Your task to perform on an android device: Open Google Maps and go to "Timeline" Image 0: 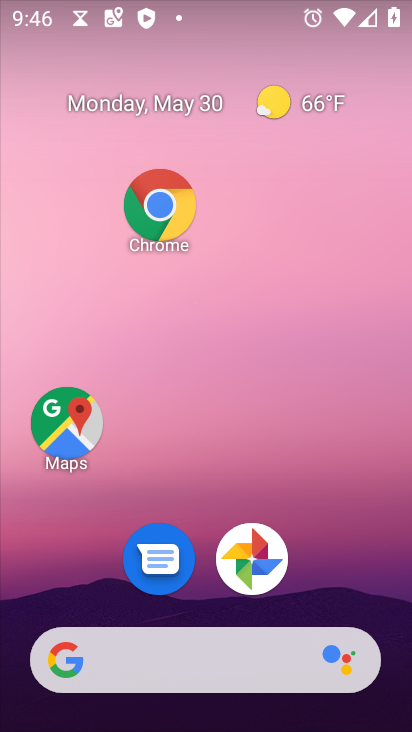
Step 0: drag from (248, 666) to (226, 128)
Your task to perform on an android device: Open Google Maps and go to "Timeline" Image 1: 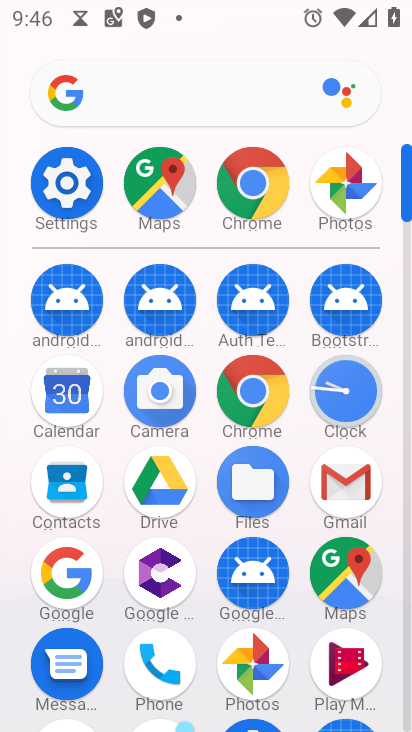
Step 1: click (341, 563)
Your task to perform on an android device: Open Google Maps and go to "Timeline" Image 2: 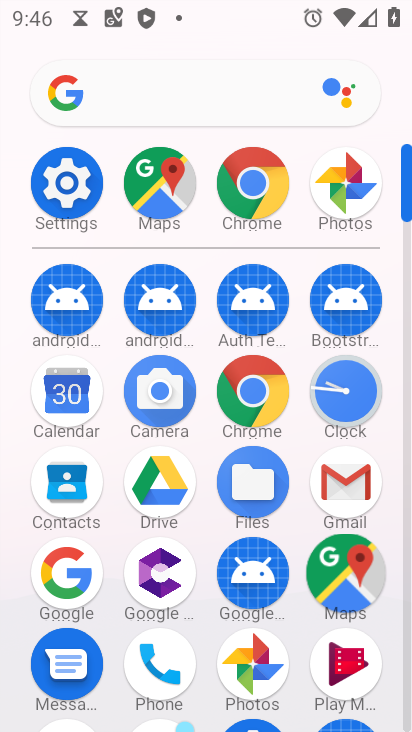
Step 2: click (343, 562)
Your task to perform on an android device: Open Google Maps and go to "Timeline" Image 3: 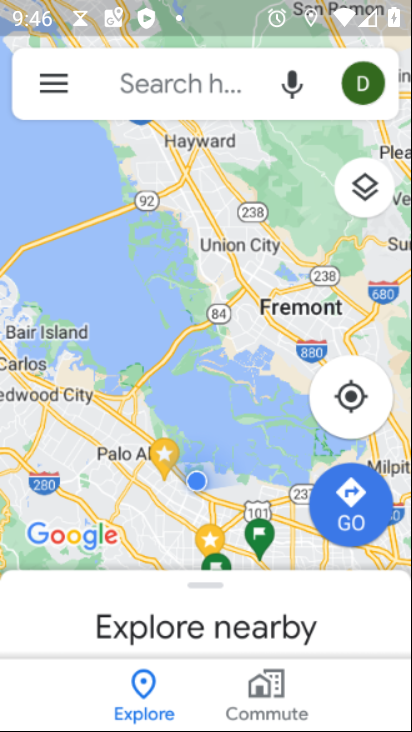
Step 3: click (343, 562)
Your task to perform on an android device: Open Google Maps and go to "Timeline" Image 4: 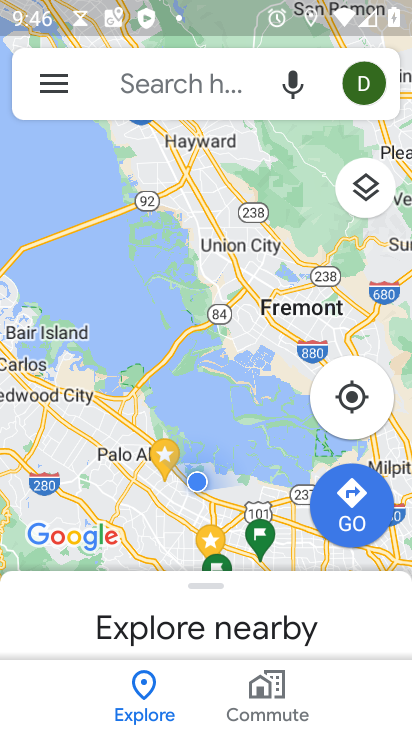
Step 4: click (61, 85)
Your task to perform on an android device: Open Google Maps and go to "Timeline" Image 5: 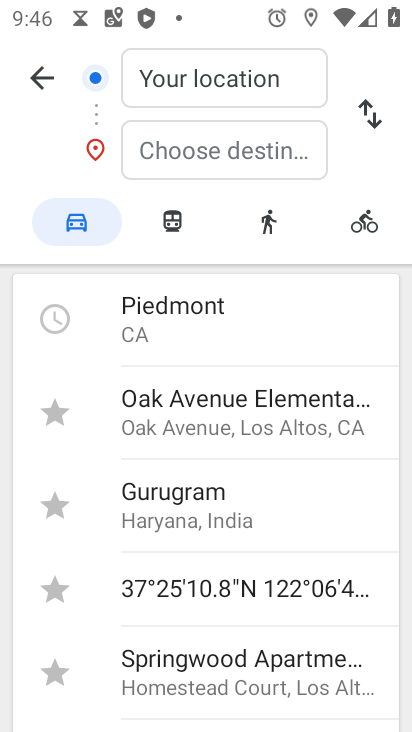
Step 5: press back button
Your task to perform on an android device: Open Google Maps and go to "Timeline" Image 6: 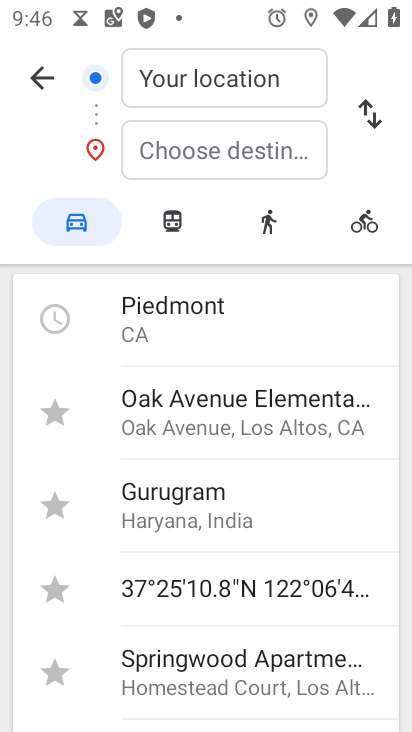
Step 6: press back button
Your task to perform on an android device: Open Google Maps and go to "Timeline" Image 7: 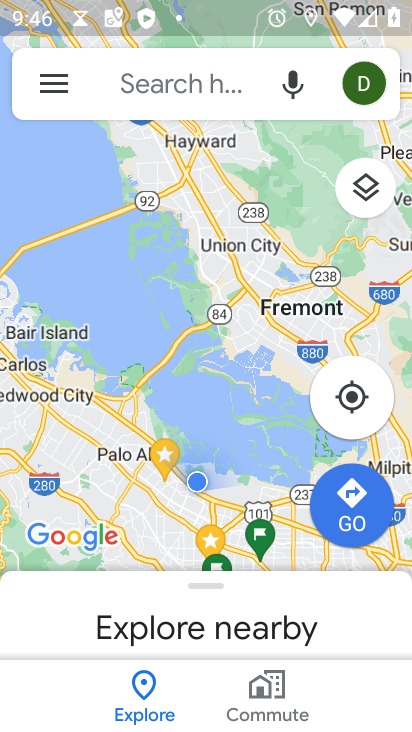
Step 7: press back button
Your task to perform on an android device: Open Google Maps and go to "Timeline" Image 8: 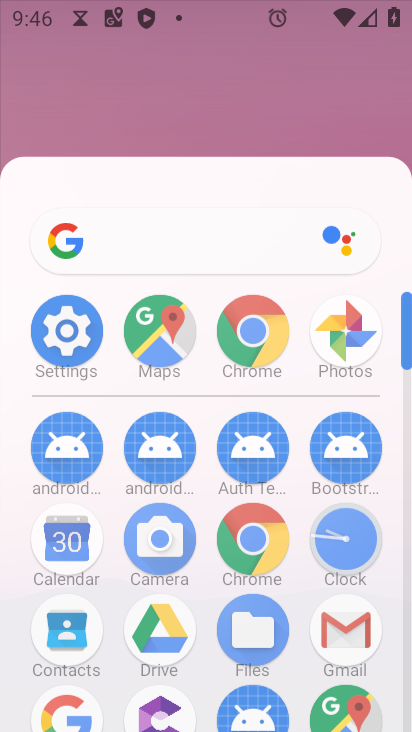
Step 8: click (43, 84)
Your task to perform on an android device: Open Google Maps and go to "Timeline" Image 9: 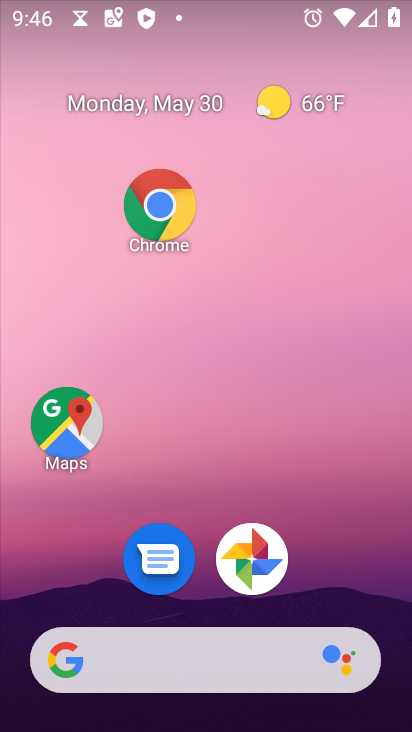
Step 9: drag from (228, 623) to (144, 62)
Your task to perform on an android device: Open Google Maps and go to "Timeline" Image 10: 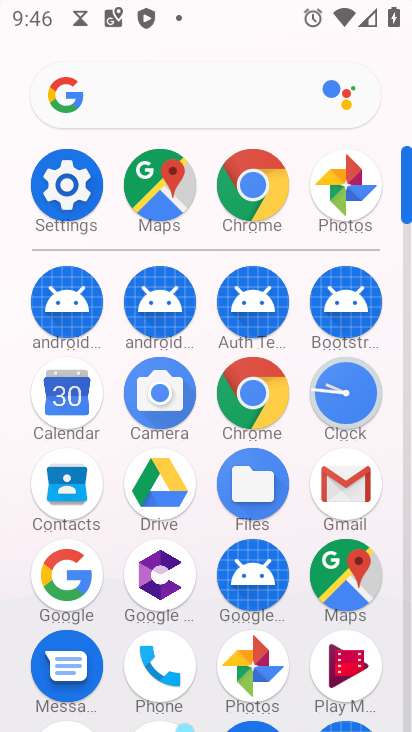
Step 10: drag from (152, 487) to (107, 40)
Your task to perform on an android device: Open Google Maps and go to "Timeline" Image 11: 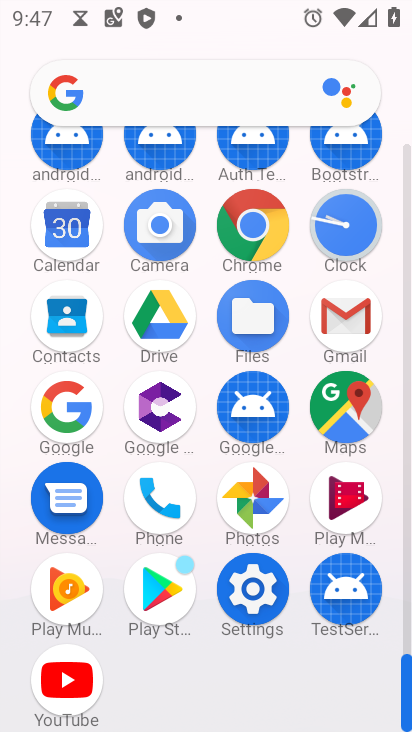
Step 11: click (258, 605)
Your task to perform on an android device: Open Google Maps and go to "Timeline" Image 12: 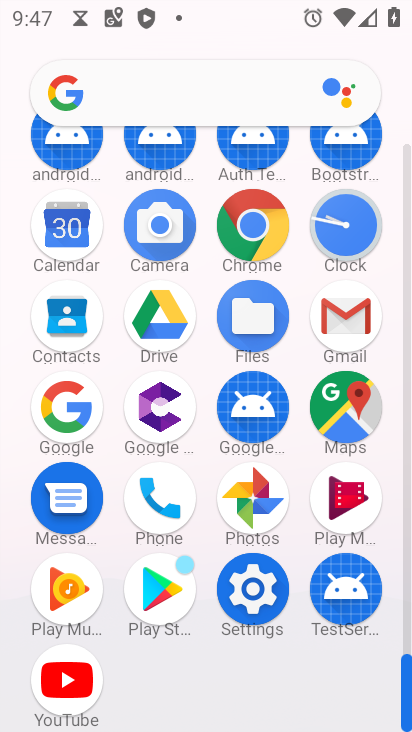
Step 12: click (258, 605)
Your task to perform on an android device: Open Google Maps and go to "Timeline" Image 13: 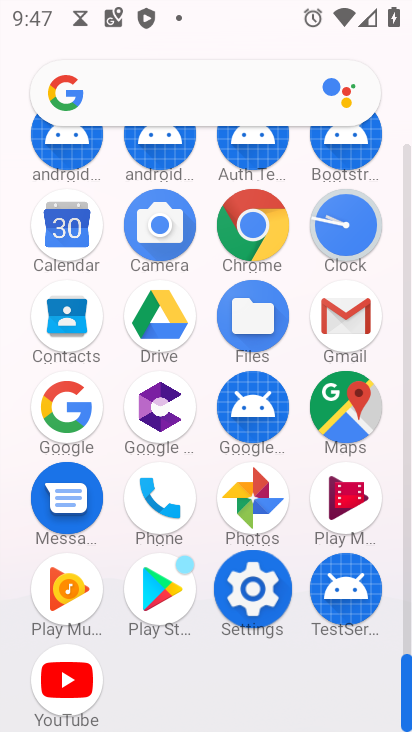
Step 13: click (258, 605)
Your task to perform on an android device: Open Google Maps and go to "Timeline" Image 14: 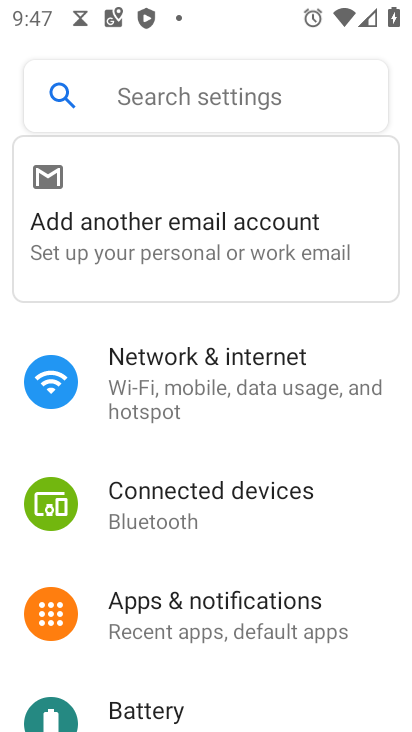
Step 14: drag from (235, 579) to (200, 188)
Your task to perform on an android device: Open Google Maps and go to "Timeline" Image 15: 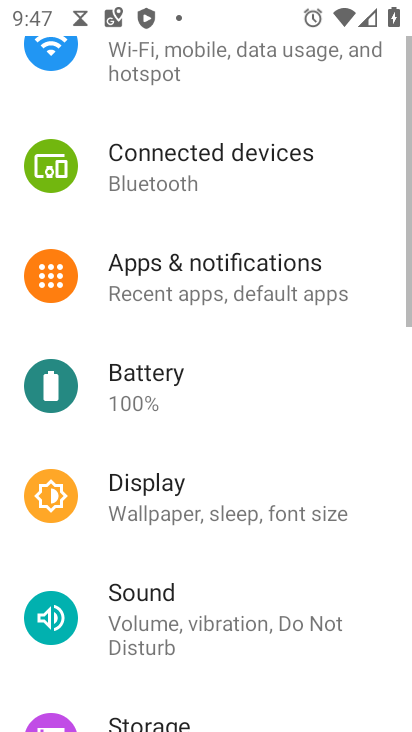
Step 15: drag from (246, 523) to (240, 304)
Your task to perform on an android device: Open Google Maps and go to "Timeline" Image 16: 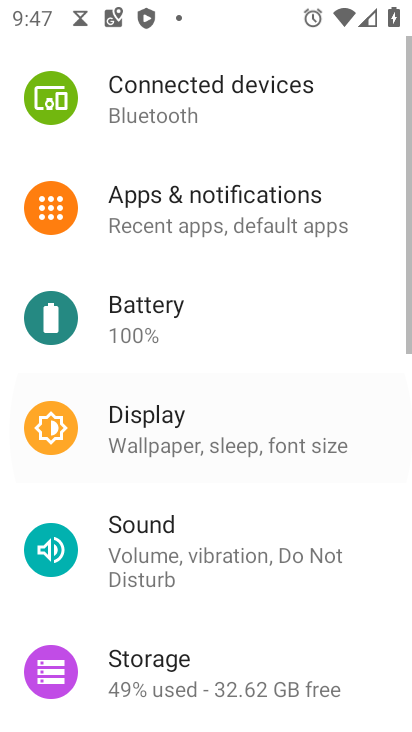
Step 16: drag from (250, 564) to (244, 266)
Your task to perform on an android device: Open Google Maps and go to "Timeline" Image 17: 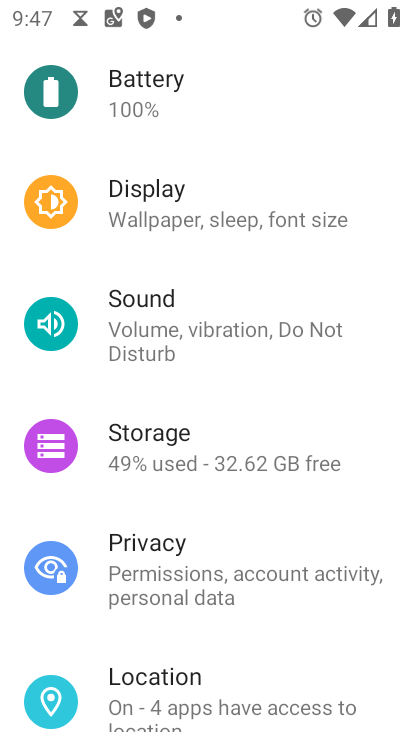
Step 17: drag from (139, 215) to (218, 564)
Your task to perform on an android device: Open Google Maps and go to "Timeline" Image 18: 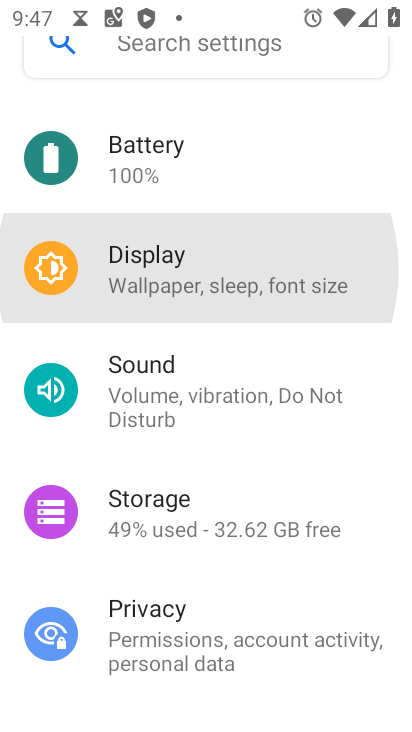
Step 18: drag from (226, 341) to (290, 463)
Your task to perform on an android device: Open Google Maps and go to "Timeline" Image 19: 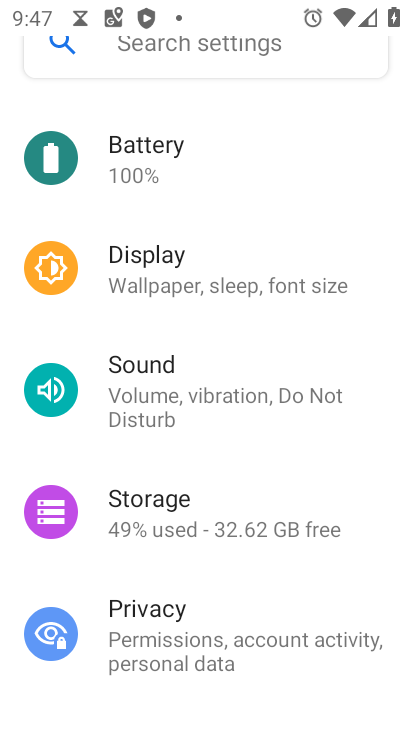
Step 19: press home button
Your task to perform on an android device: Open Google Maps and go to "Timeline" Image 20: 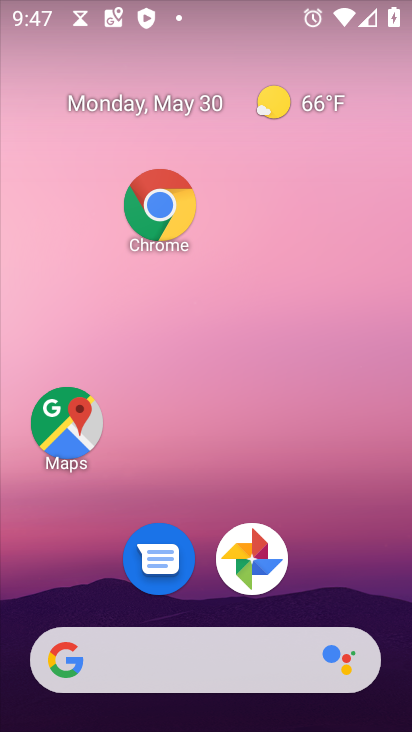
Step 20: drag from (230, 653) to (169, 79)
Your task to perform on an android device: Open Google Maps and go to "Timeline" Image 21: 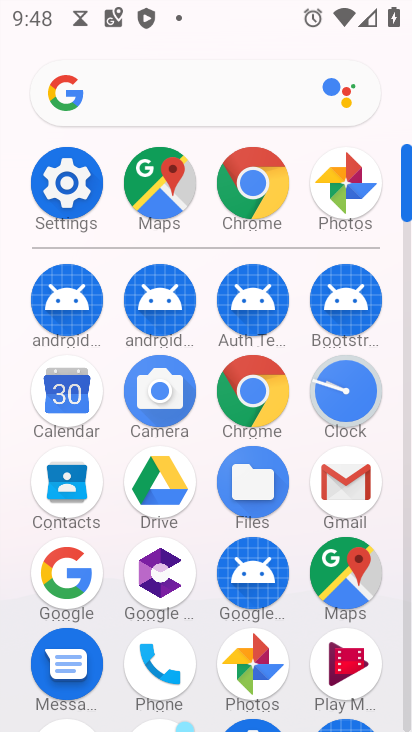
Step 21: click (357, 566)
Your task to perform on an android device: Open Google Maps and go to "Timeline" Image 22: 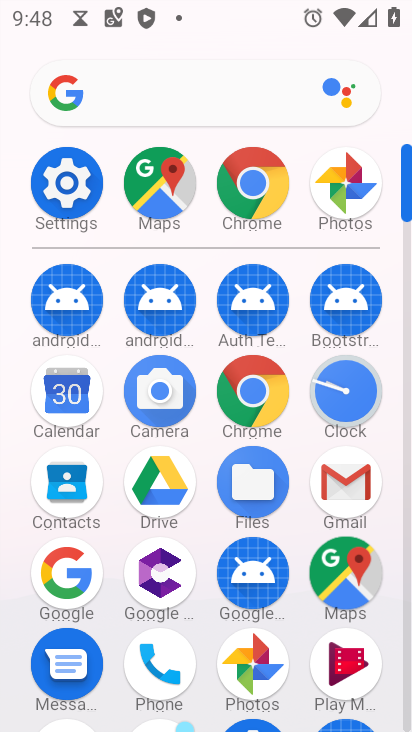
Step 22: click (352, 585)
Your task to perform on an android device: Open Google Maps and go to "Timeline" Image 23: 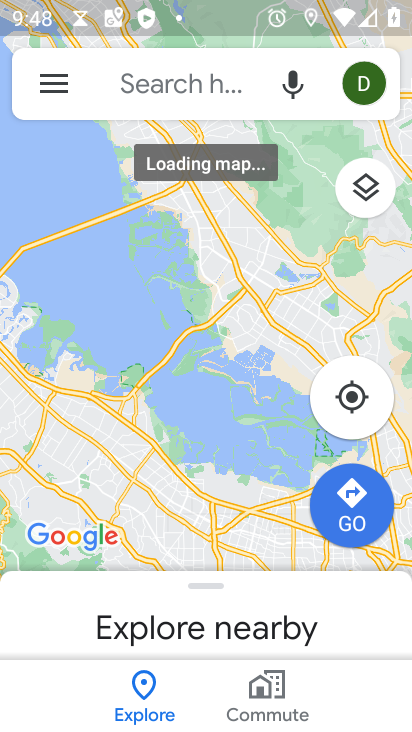
Step 23: click (108, 81)
Your task to perform on an android device: Open Google Maps and go to "Timeline" Image 24: 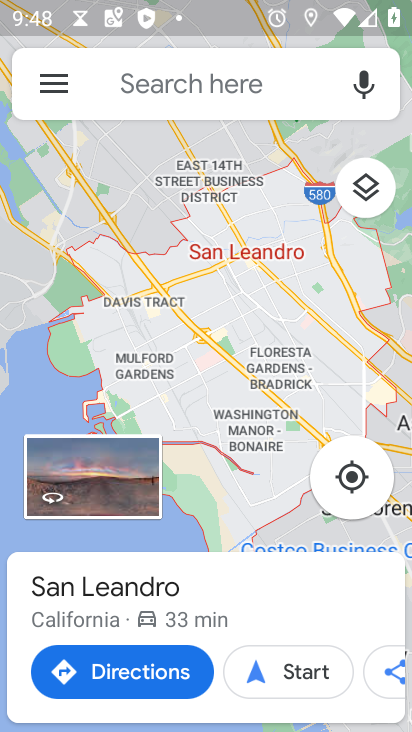
Step 24: click (107, 80)
Your task to perform on an android device: Open Google Maps and go to "Timeline" Image 25: 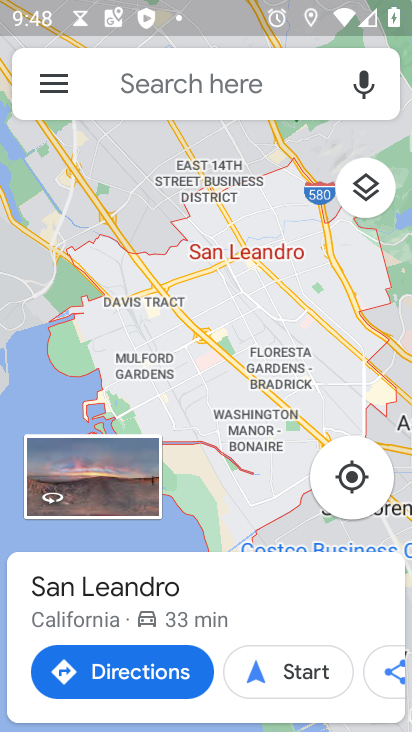
Step 25: click (110, 77)
Your task to perform on an android device: Open Google Maps and go to "Timeline" Image 26: 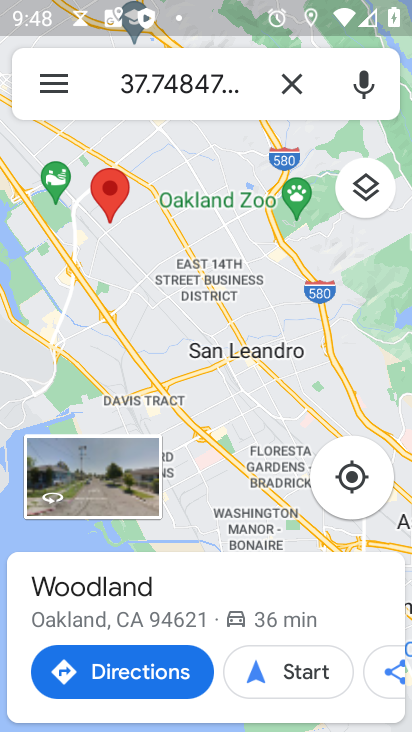
Step 26: click (56, 90)
Your task to perform on an android device: Open Google Maps and go to "Timeline" Image 27: 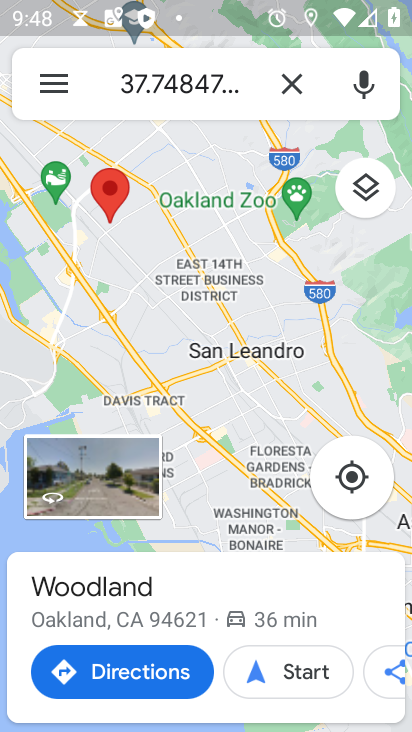
Step 27: click (57, 90)
Your task to perform on an android device: Open Google Maps and go to "Timeline" Image 28: 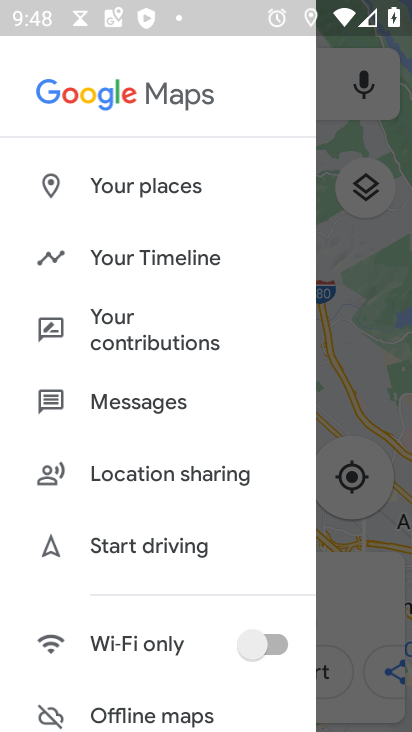
Step 28: click (320, 86)
Your task to perform on an android device: Open Google Maps and go to "Timeline" Image 29: 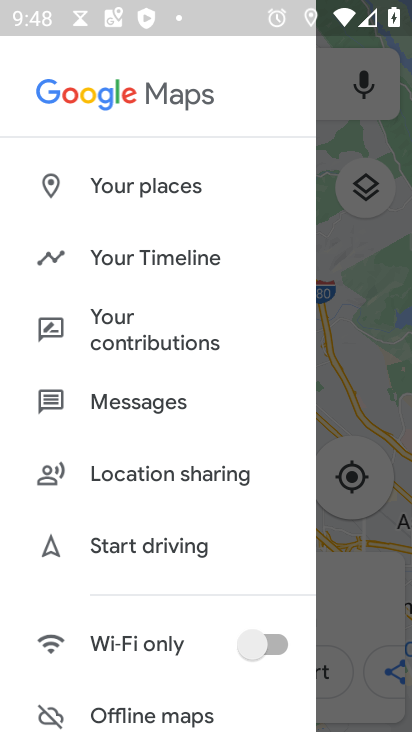
Step 29: click (321, 86)
Your task to perform on an android device: Open Google Maps and go to "Timeline" Image 30: 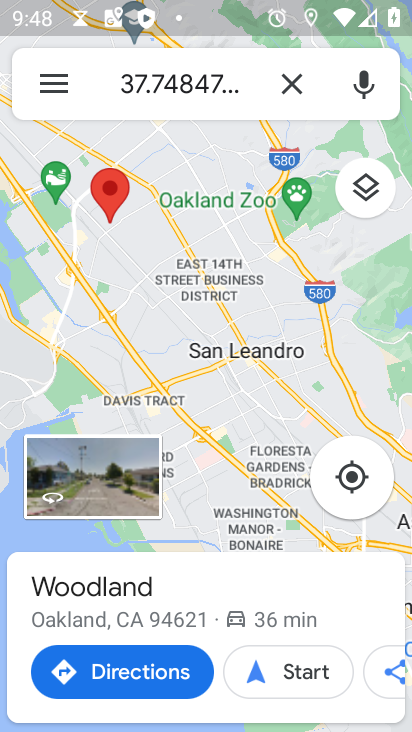
Step 30: click (60, 85)
Your task to perform on an android device: Open Google Maps and go to "Timeline" Image 31: 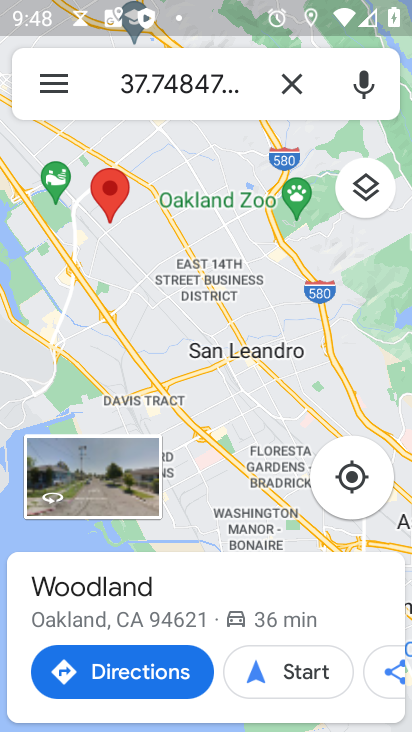
Step 31: click (60, 86)
Your task to perform on an android device: Open Google Maps and go to "Timeline" Image 32: 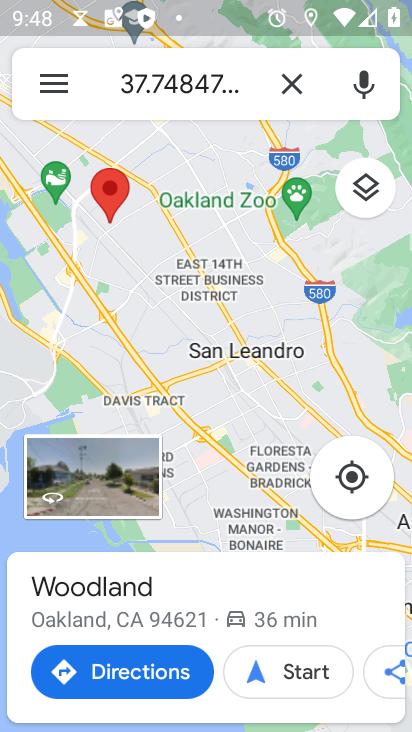
Step 32: click (115, 84)
Your task to perform on an android device: Open Google Maps and go to "Timeline" Image 33: 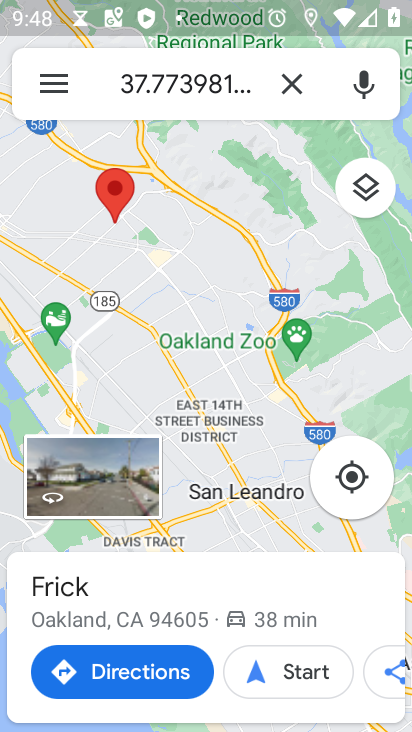
Step 33: click (64, 85)
Your task to perform on an android device: Open Google Maps and go to "Timeline" Image 34: 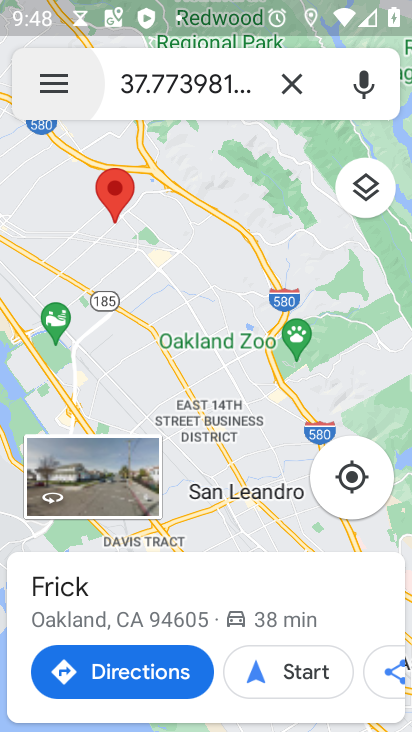
Step 34: drag from (65, 102) to (114, 258)
Your task to perform on an android device: Open Google Maps and go to "Timeline" Image 35: 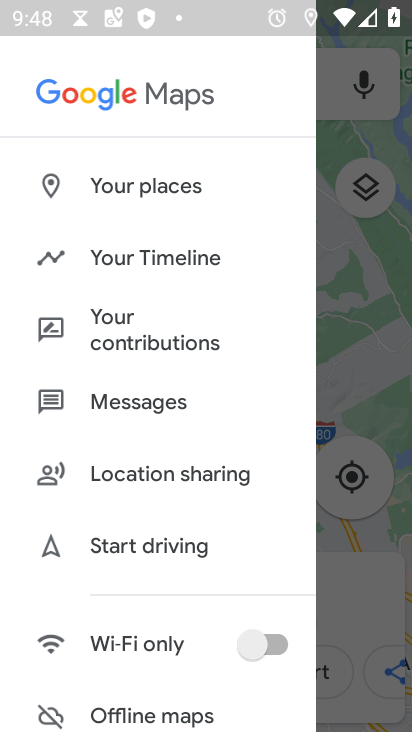
Step 35: click (178, 252)
Your task to perform on an android device: Open Google Maps and go to "Timeline" Image 36: 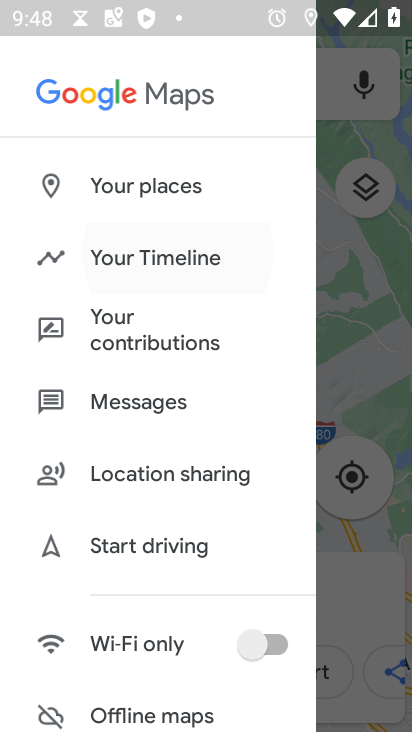
Step 36: click (185, 251)
Your task to perform on an android device: Open Google Maps and go to "Timeline" Image 37: 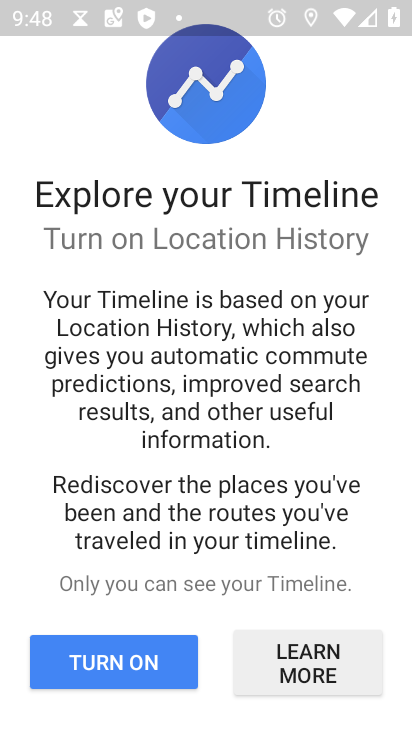
Step 37: click (107, 663)
Your task to perform on an android device: Open Google Maps and go to "Timeline" Image 38: 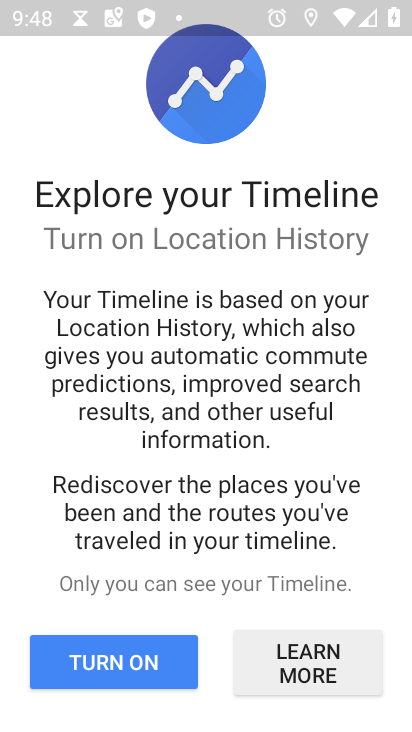
Step 38: click (107, 663)
Your task to perform on an android device: Open Google Maps and go to "Timeline" Image 39: 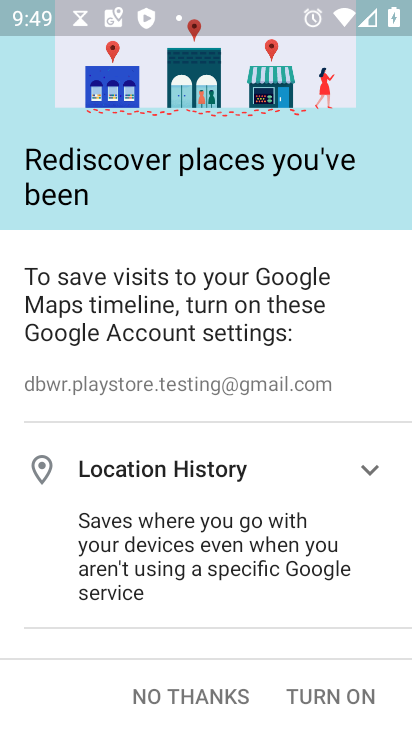
Step 39: task complete